Your task to perform on an android device: What's the weather? Image 0: 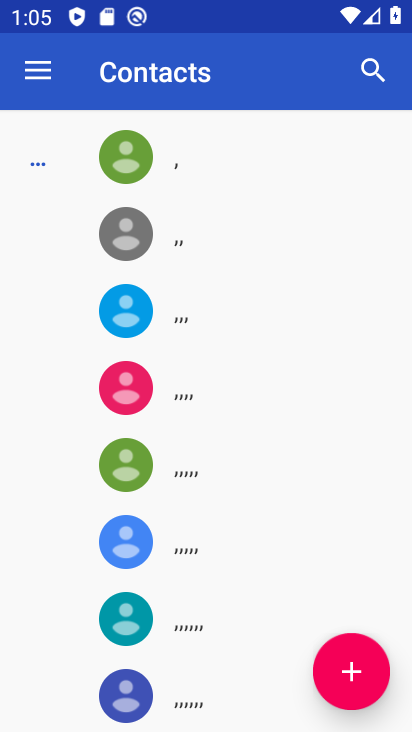
Step 0: task complete